Your task to perform on an android device: Google the capital of Argentina Image 0: 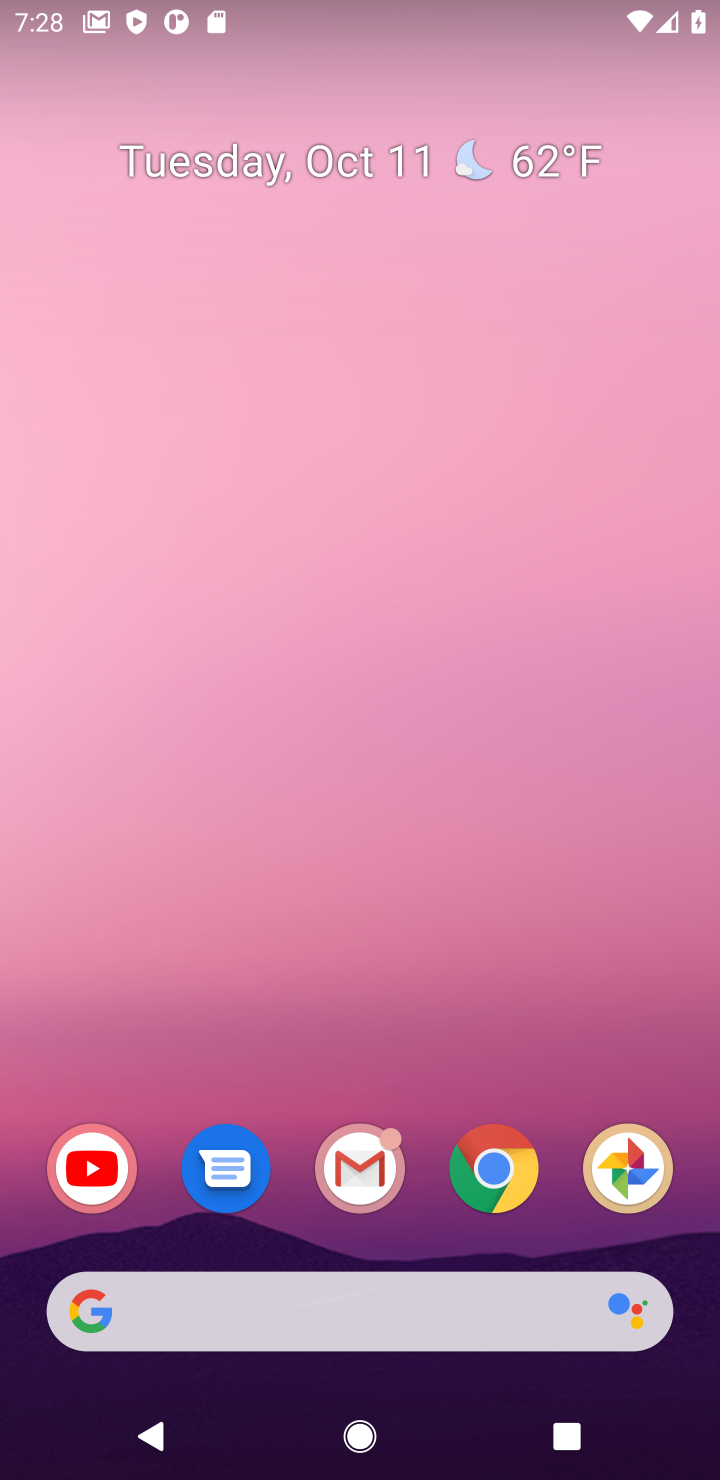
Step 0: click (495, 1164)
Your task to perform on an android device: Google the capital of Argentina Image 1: 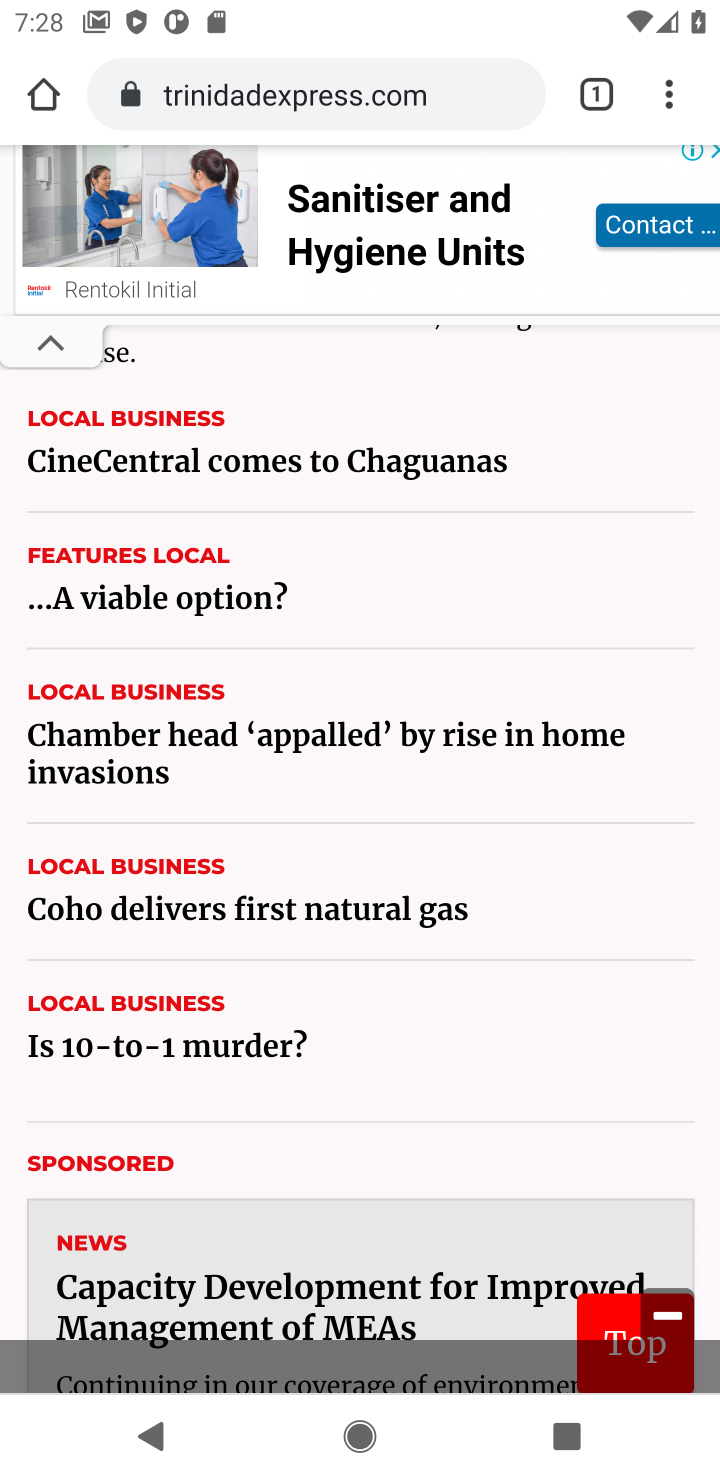
Step 1: click (358, 91)
Your task to perform on an android device: Google the capital of Argentina Image 2: 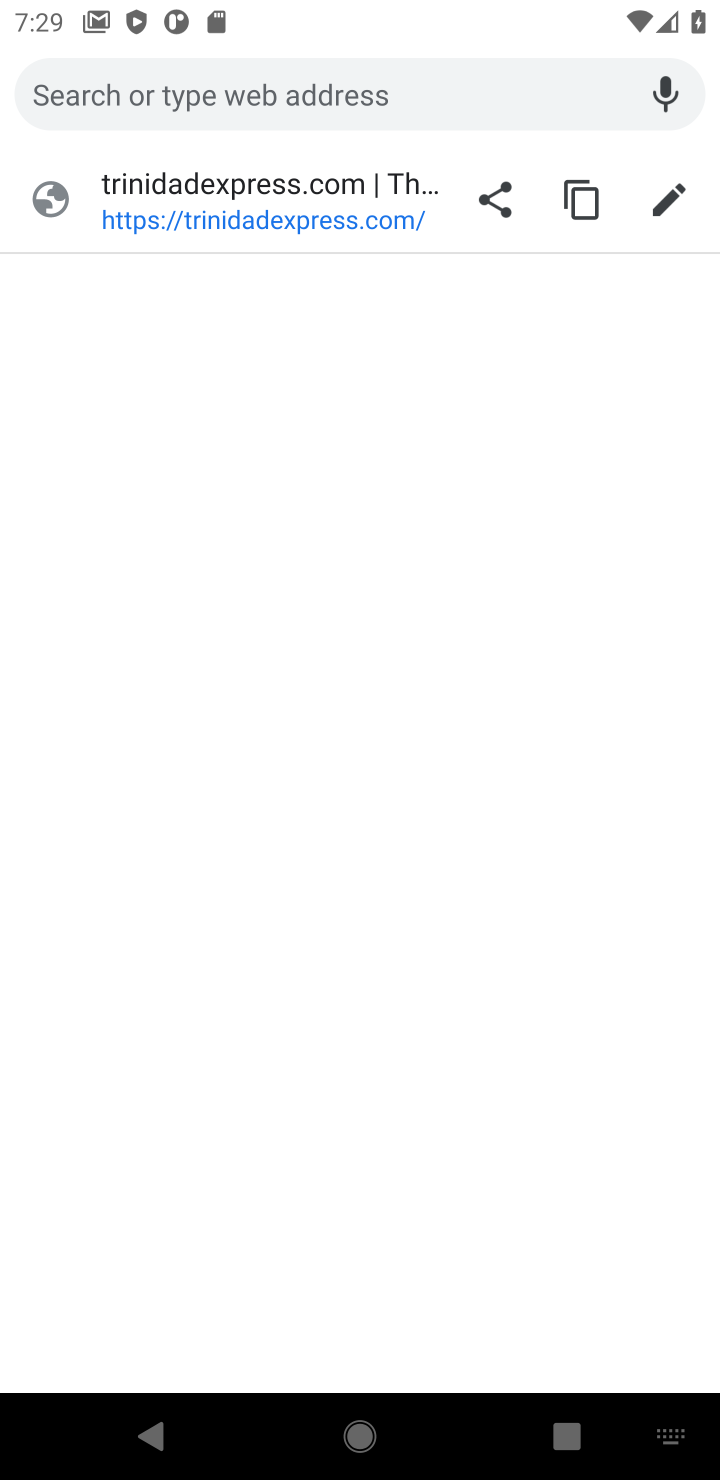
Step 2: type "capital of argentina"
Your task to perform on an android device: Google the capital of Argentina Image 3: 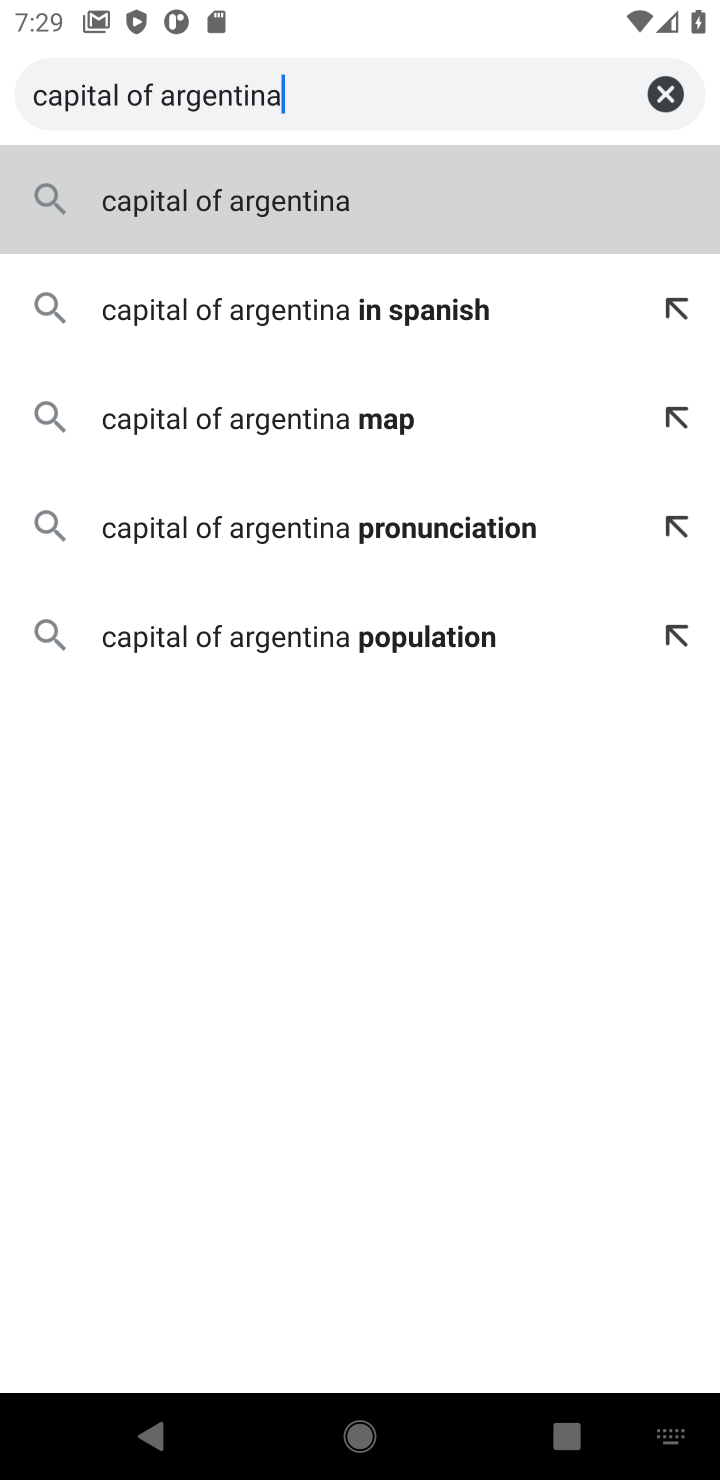
Step 3: type ""
Your task to perform on an android device: Google the capital of Argentina Image 4: 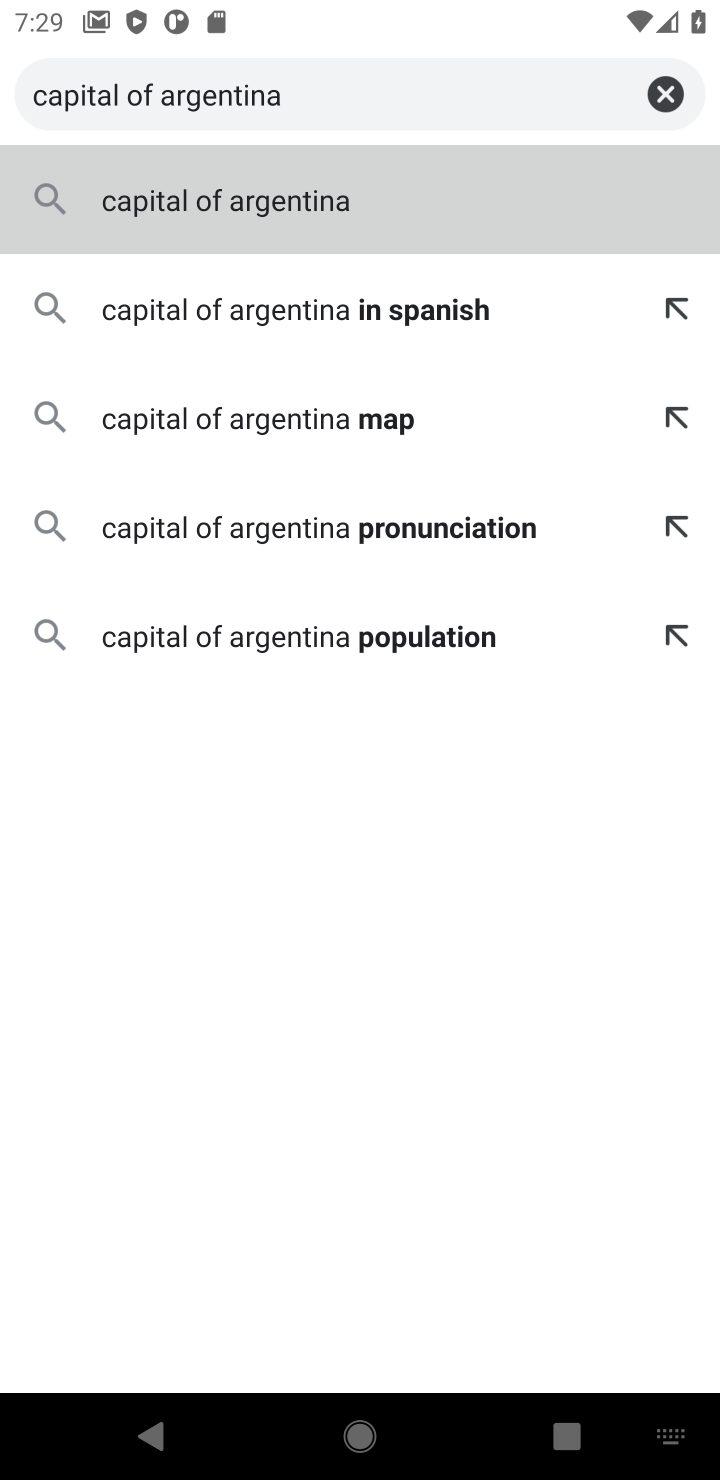
Step 4: click (233, 198)
Your task to perform on an android device: Google the capital of Argentina Image 5: 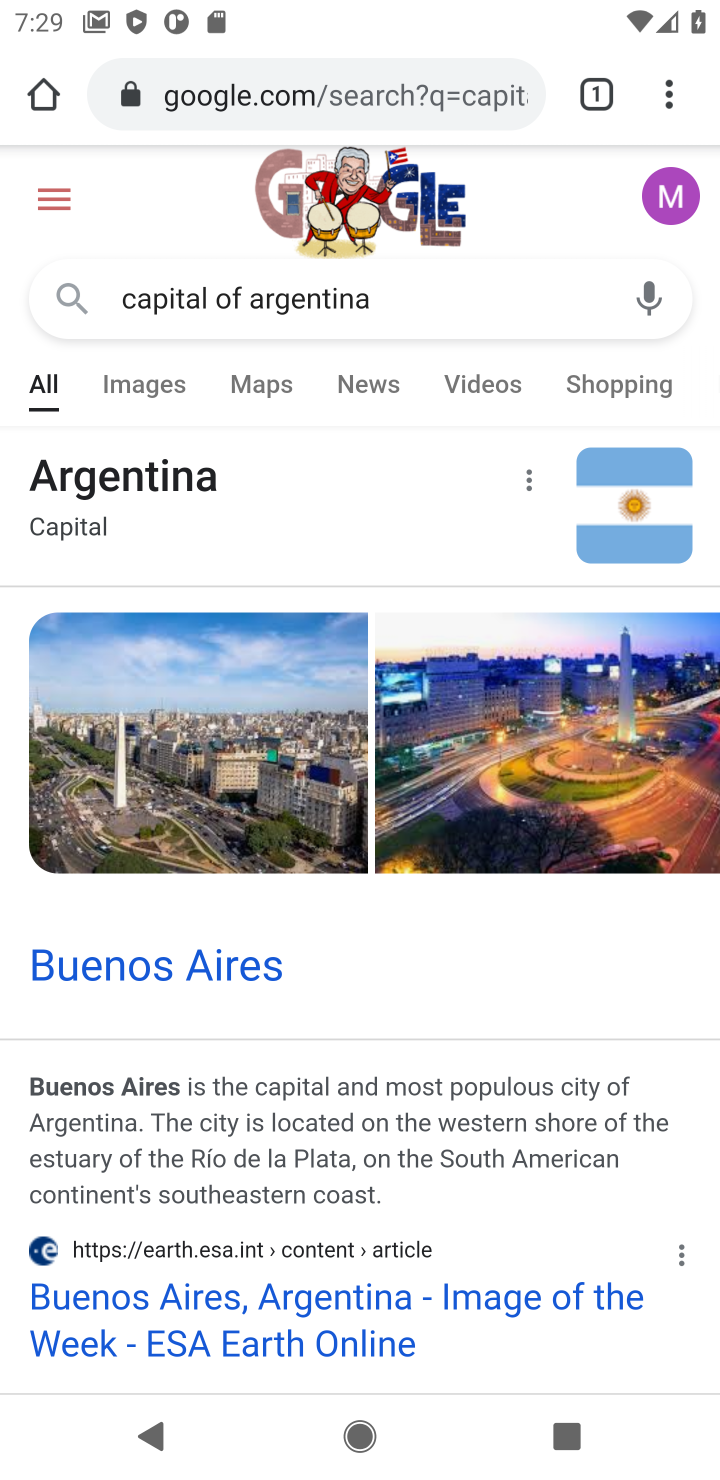
Step 5: task complete